Your task to perform on an android device: turn off data saver in the chrome app Image 0: 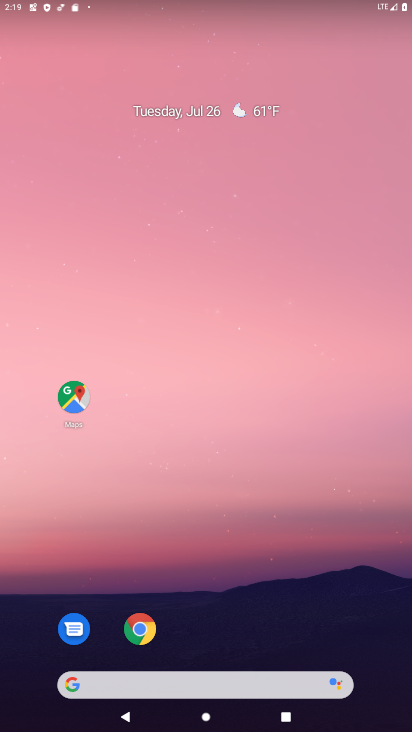
Step 0: click (139, 629)
Your task to perform on an android device: turn off data saver in the chrome app Image 1: 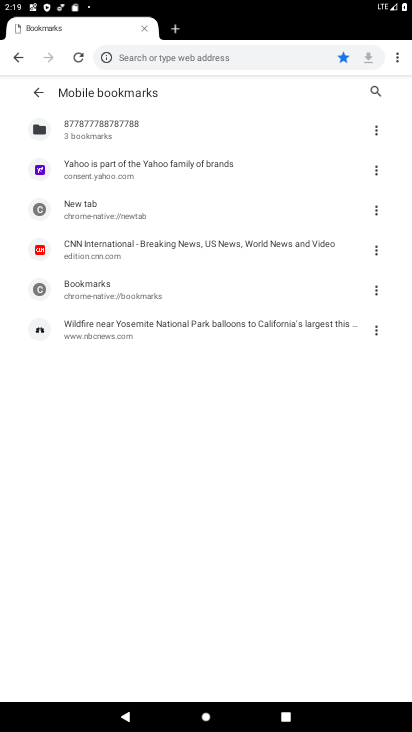
Step 1: click (400, 55)
Your task to perform on an android device: turn off data saver in the chrome app Image 2: 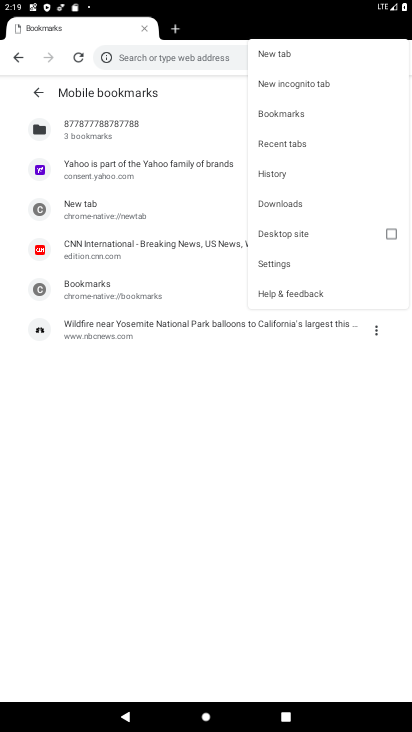
Step 2: click (272, 261)
Your task to perform on an android device: turn off data saver in the chrome app Image 3: 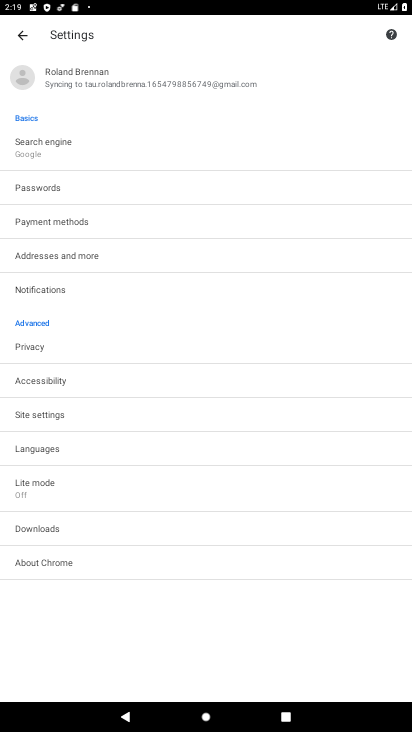
Step 3: click (50, 484)
Your task to perform on an android device: turn off data saver in the chrome app Image 4: 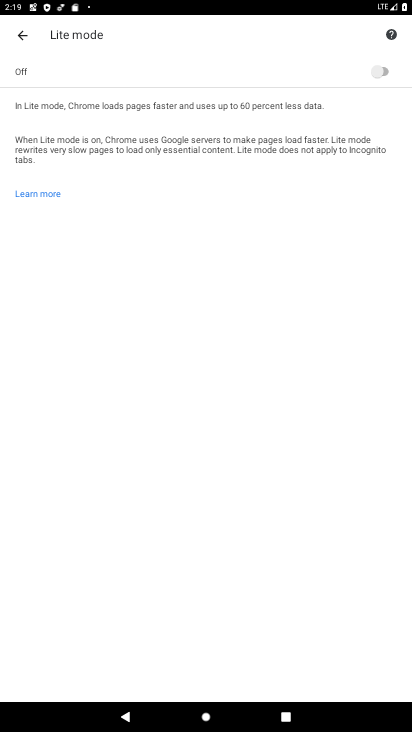
Step 4: task complete